Your task to perform on an android device: What's the weather? Image 0: 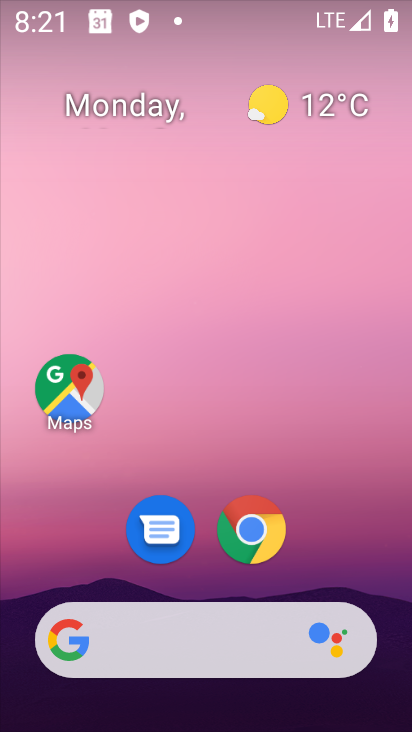
Step 0: click (325, 107)
Your task to perform on an android device: What's the weather? Image 1: 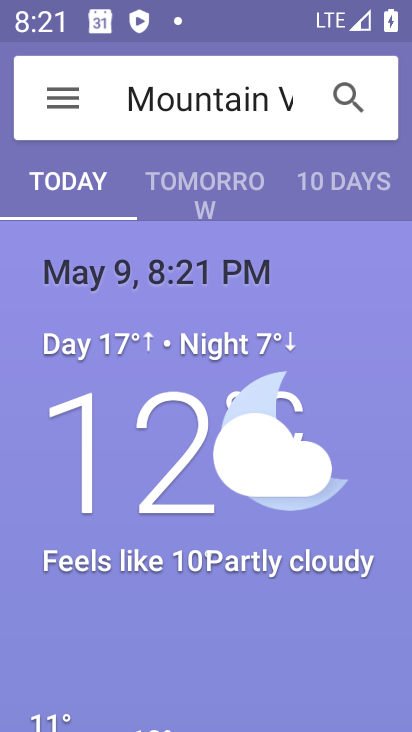
Step 1: task complete